Your task to perform on an android device: delete a single message in the gmail app Image 0: 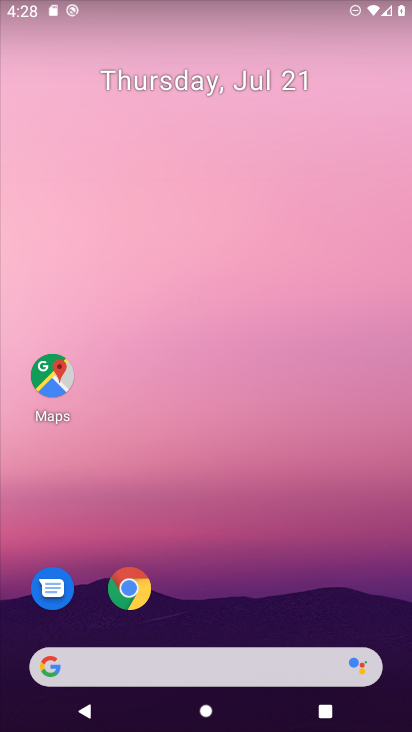
Step 0: drag from (251, 657) to (274, 157)
Your task to perform on an android device: delete a single message in the gmail app Image 1: 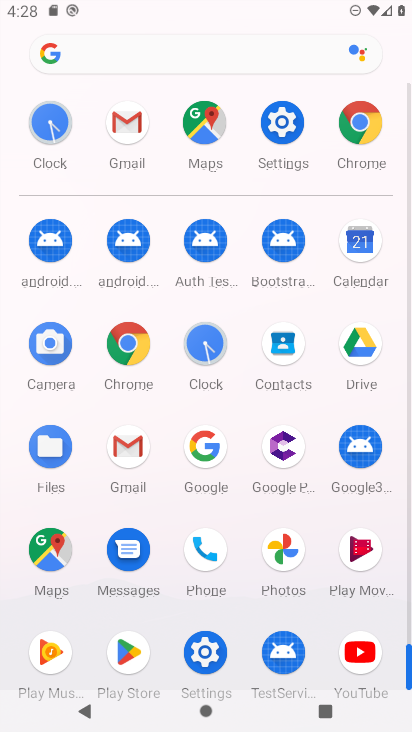
Step 1: click (127, 457)
Your task to perform on an android device: delete a single message in the gmail app Image 2: 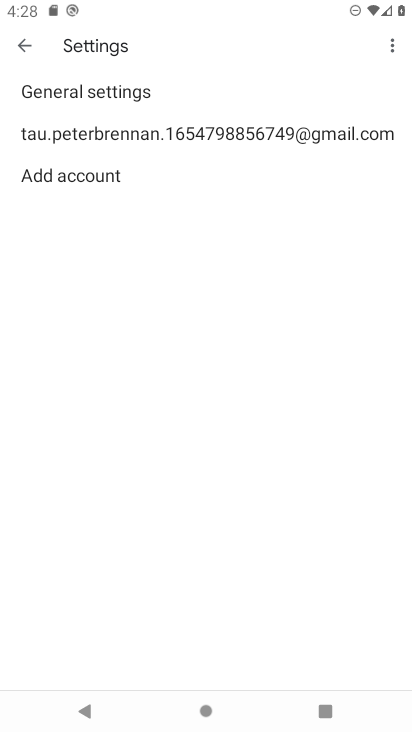
Step 2: click (27, 47)
Your task to perform on an android device: delete a single message in the gmail app Image 3: 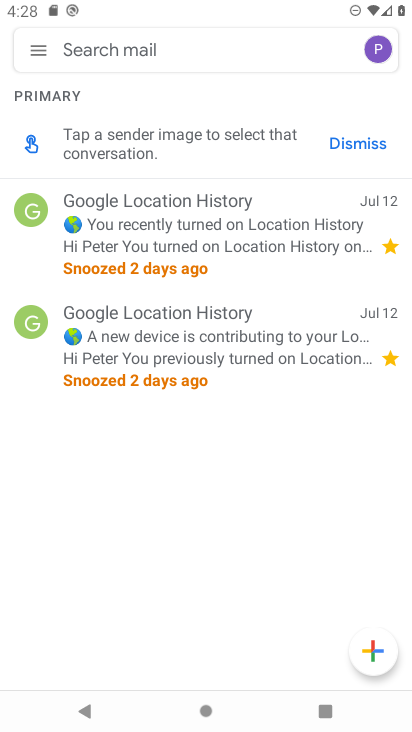
Step 3: click (166, 237)
Your task to perform on an android device: delete a single message in the gmail app Image 4: 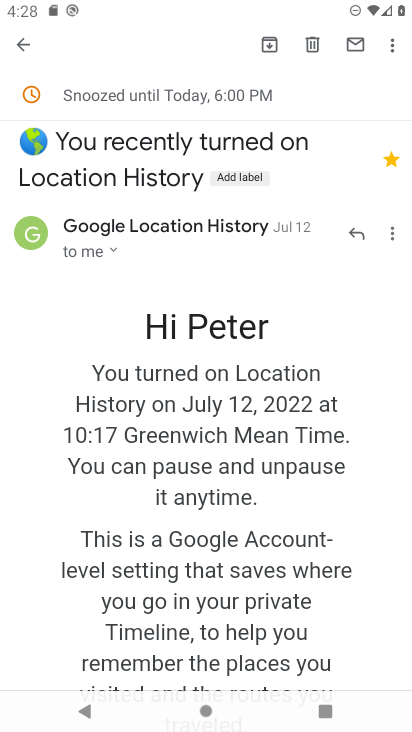
Step 4: click (310, 46)
Your task to perform on an android device: delete a single message in the gmail app Image 5: 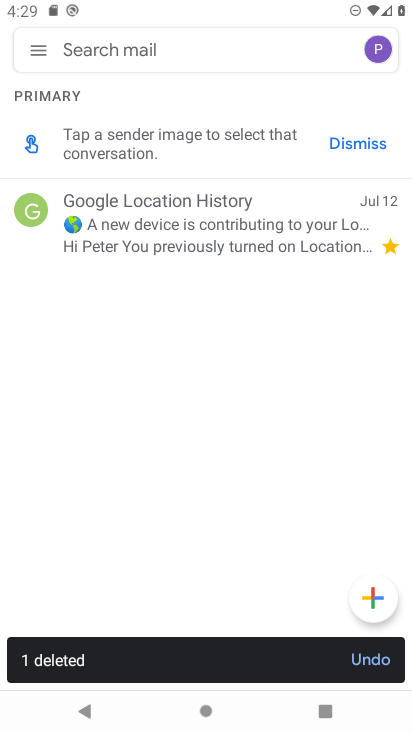
Step 5: task complete